Your task to perform on an android device: Is it going to rain this weekend? Image 0: 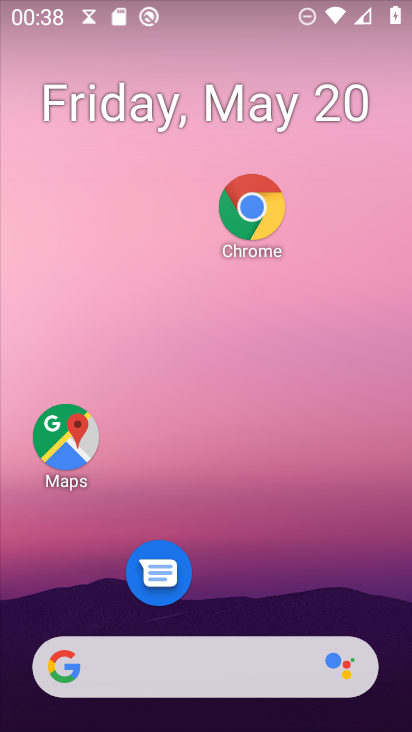
Step 0: click (178, 651)
Your task to perform on an android device: Is it going to rain this weekend? Image 1: 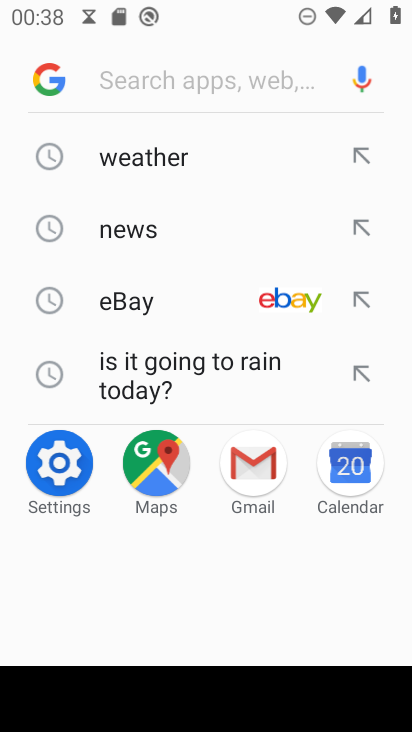
Step 1: type "is it goin to rain this weakend"
Your task to perform on an android device: Is it going to rain this weekend? Image 2: 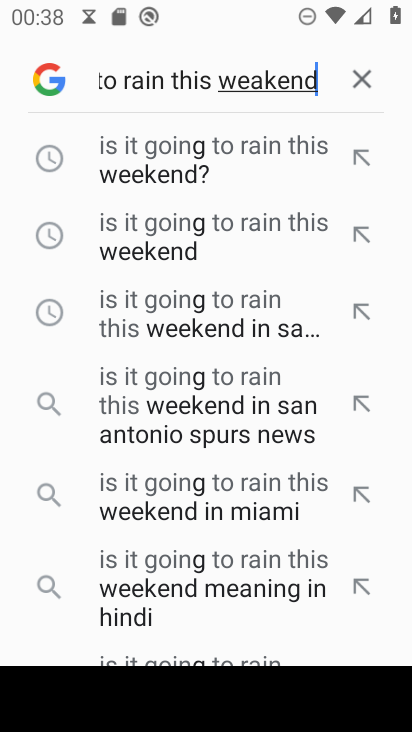
Step 2: click (261, 143)
Your task to perform on an android device: Is it going to rain this weekend? Image 3: 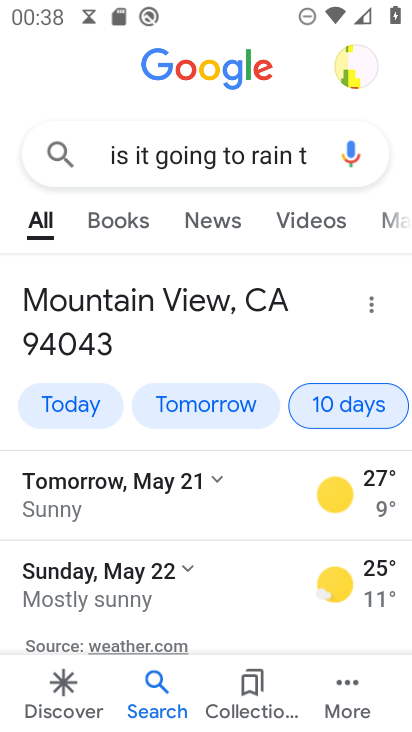
Step 3: task complete